Your task to perform on an android device: Open the calendar app, open the side menu, and click the "Day" option Image 0: 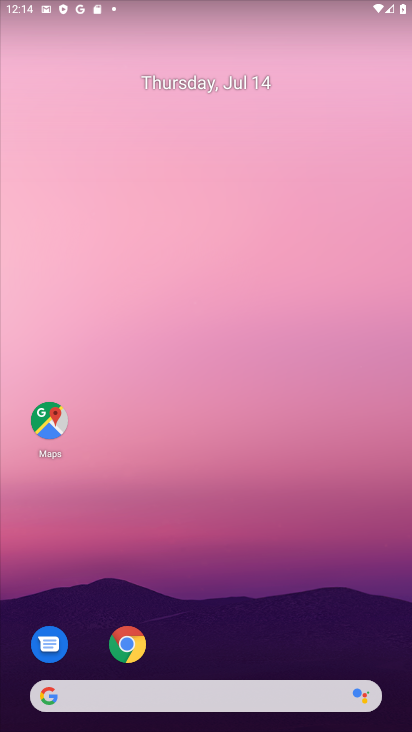
Step 0: drag from (278, 596) to (290, 88)
Your task to perform on an android device: Open the calendar app, open the side menu, and click the "Day" option Image 1: 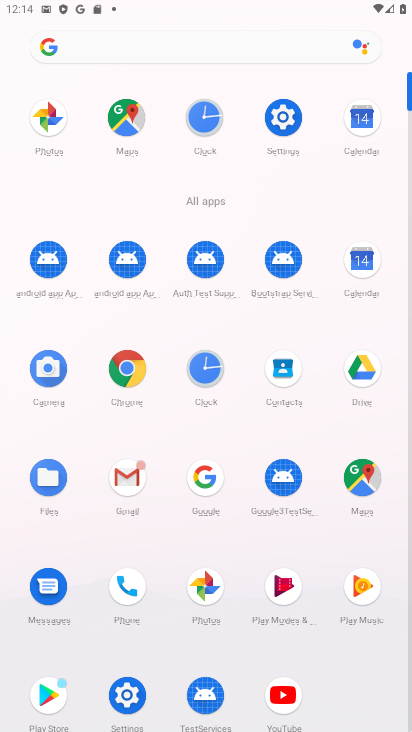
Step 1: click (357, 109)
Your task to perform on an android device: Open the calendar app, open the side menu, and click the "Day" option Image 2: 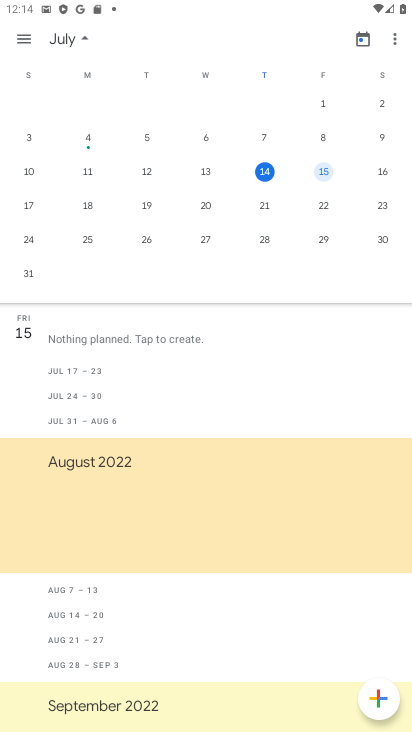
Step 2: click (18, 39)
Your task to perform on an android device: Open the calendar app, open the side menu, and click the "Day" option Image 3: 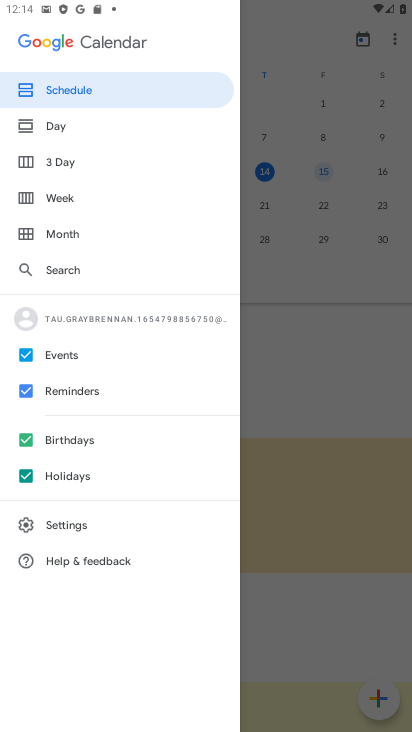
Step 3: click (65, 128)
Your task to perform on an android device: Open the calendar app, open the side menu, and click the "Day" option Image 4: 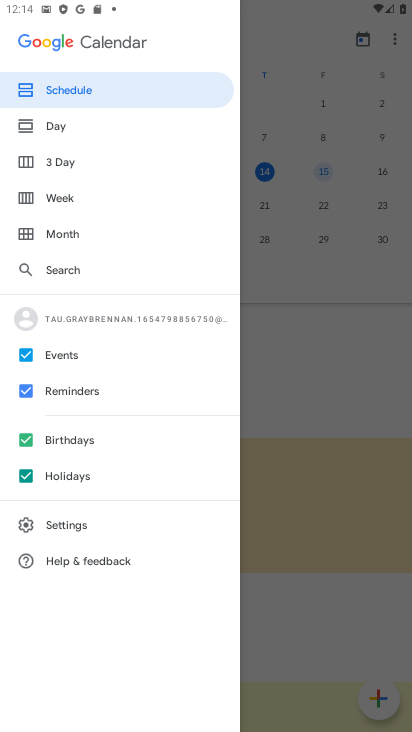
Step 4: click (78, 138)
Your task to perform on an android device: Open the calendar app, open the side menu, and click the "Day" option Image 5: 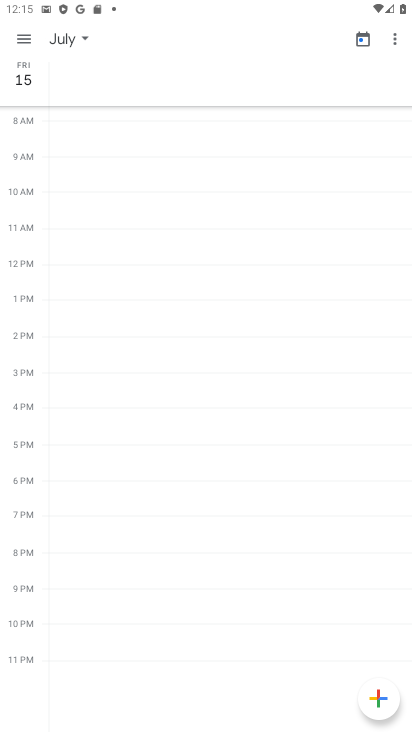
Step 5: task complete